Your task to perform on an android device: star an email in the gmail app Image 0: 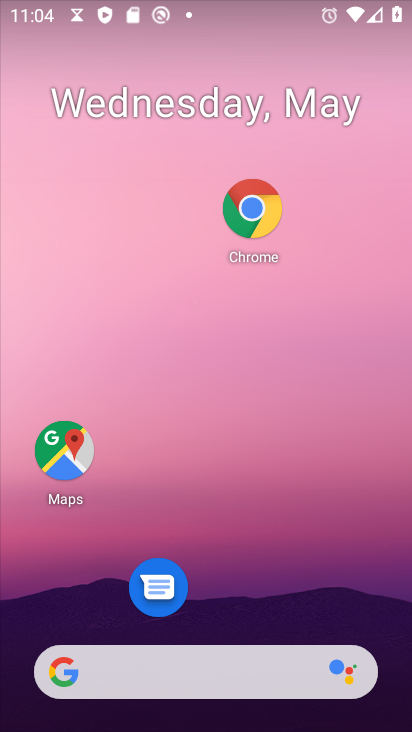
Step 0: click (256, 214)
Your task to perform on an android device: star an email in the gmail app Image 1: 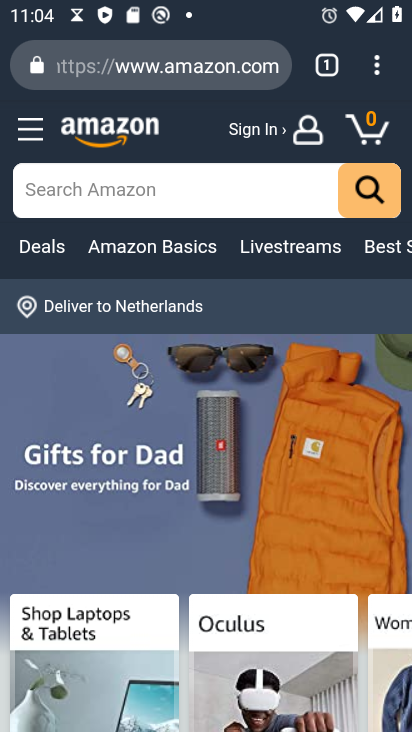
Step 1: press home button
Your task to perform on an android device: star an email in the gmail app Image 2: 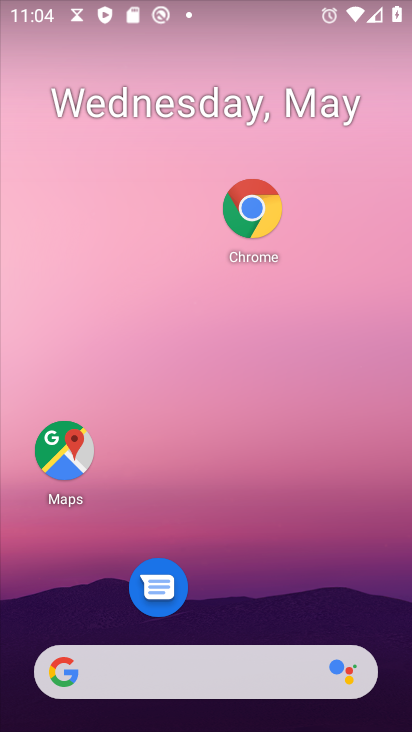
Step 2: drag from (231, 615) to (256, 9)
Your task to perform on an android device: star an email in the gmail app Image 3: 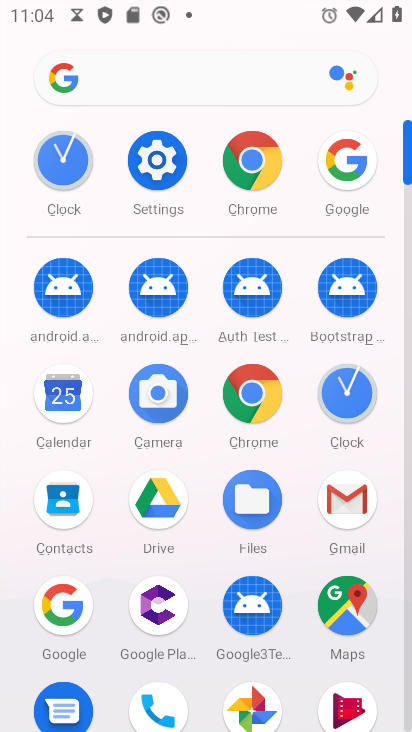
Step 3: click (347, 507)
Your task to perform on an android device: star an email in the gmail app Image 4: 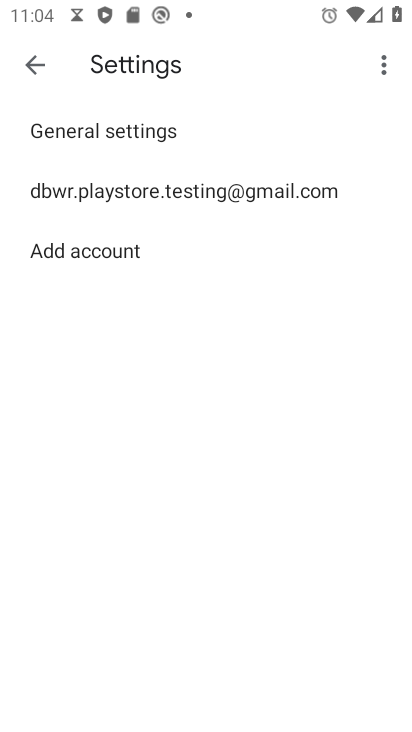
Step 4: click (88, 193)
Your task to perform on an android device: star an email in the gmail app Image 5: 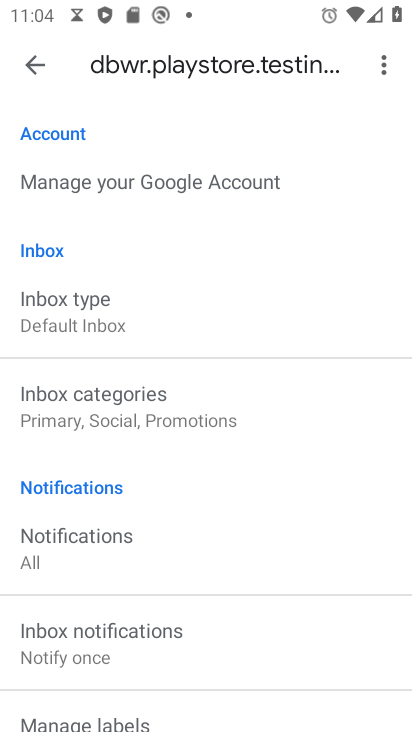
Step 5: click (42, 64)
Your task to perform on an android device: star an email in the gmail app Image 6: 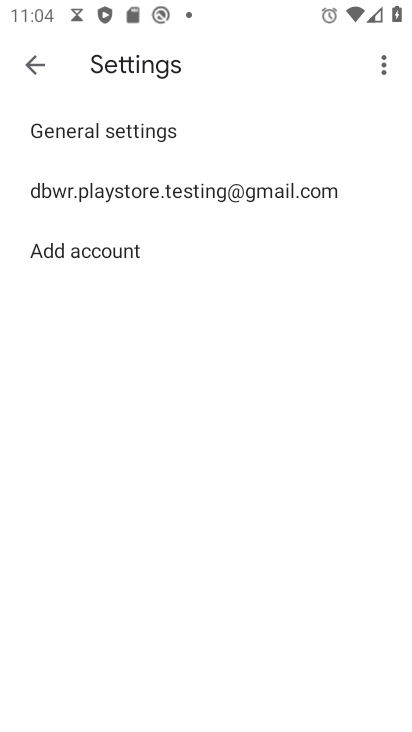
Step 6: click (39, 79)
Your task to perform on an android device: star an email in the gmail app Image 7: 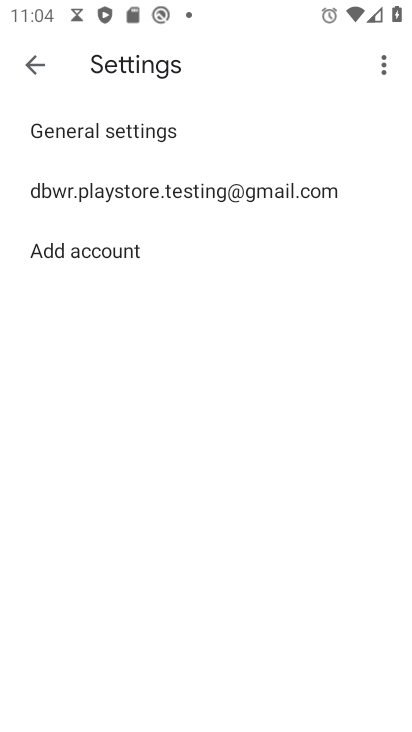
Step 7: click (35, 64)
Your task to perform on an android device: star an email in the gmail app Image 8: 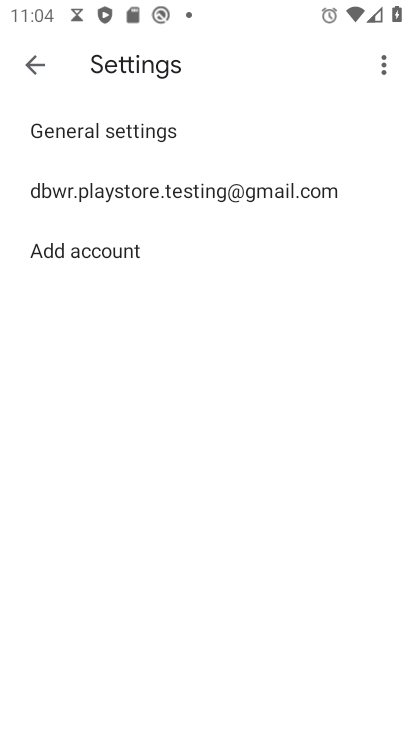
Step 8: click (30, 62)
Your task to perform on an android device: star an email in the gmail app Image 9: 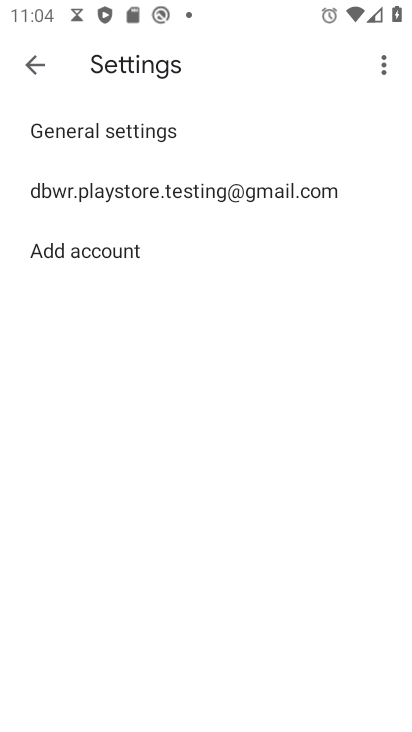
Step 9: click (39, 72)
Your task to perform on an android device: star an email in the gmail app Image 10: 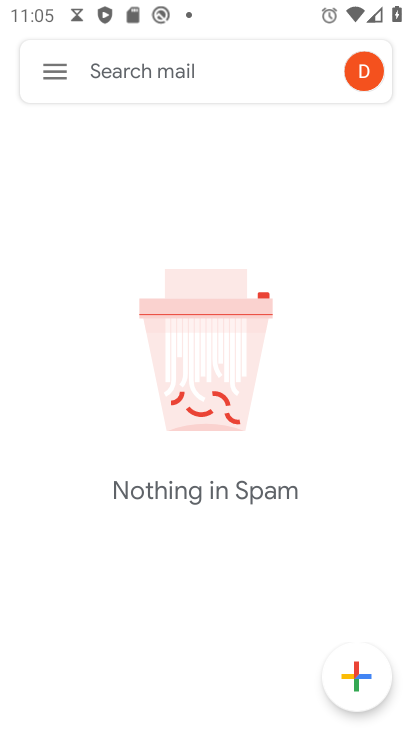
Step 10: click (56, 85)
Your task to perform on an android device: star an email in the gmail app Image 11: 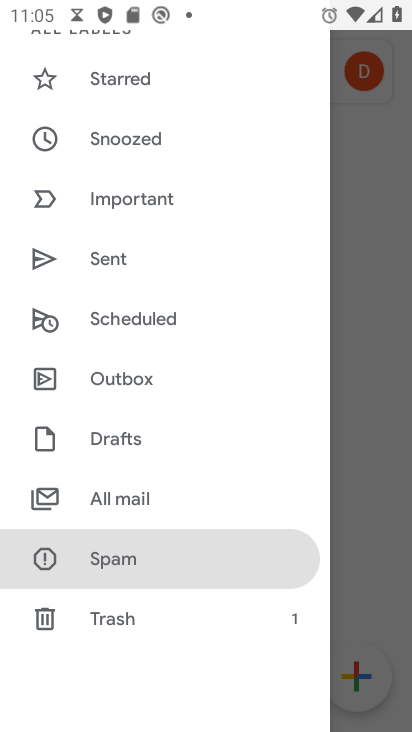
Step 11: click (141, 495)
Your task to perform on an android device: star an email in the gmail app Image 12: 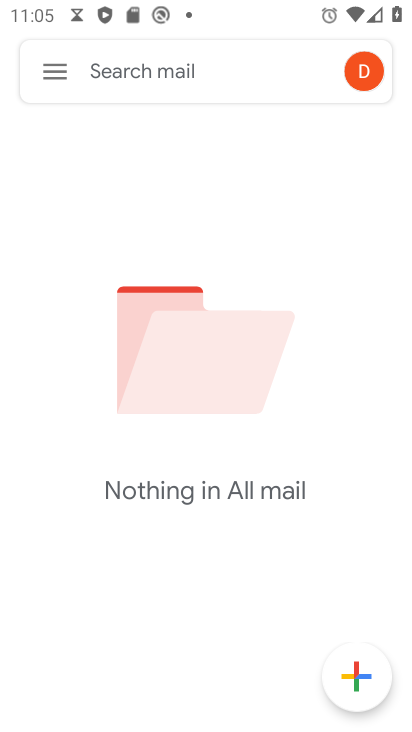
Step 12: task complete